Your task to perform on an android device: add a contact in the contacts app Image 0: 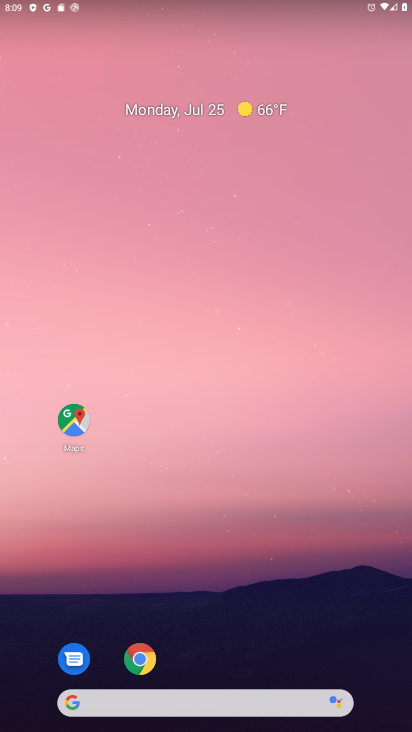
Step 0: drag from (218, 665) to (147, 158)
Your task to perform on an android device: add a contact in the contacts app Image 1: 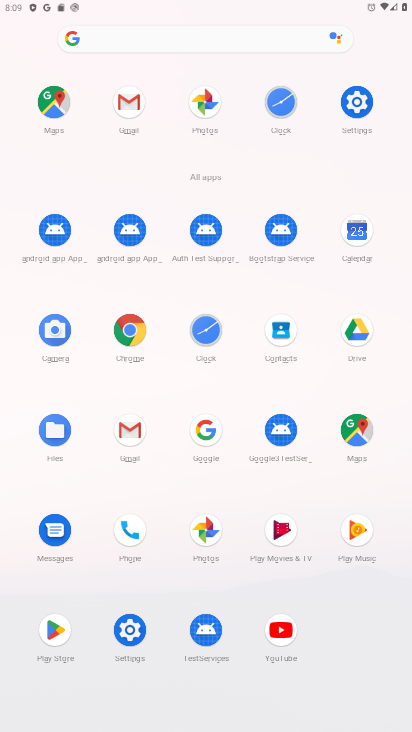
Step 1: click (131, 516)
Your task to perform on an android device: add a contact in the contacts app Image 2: 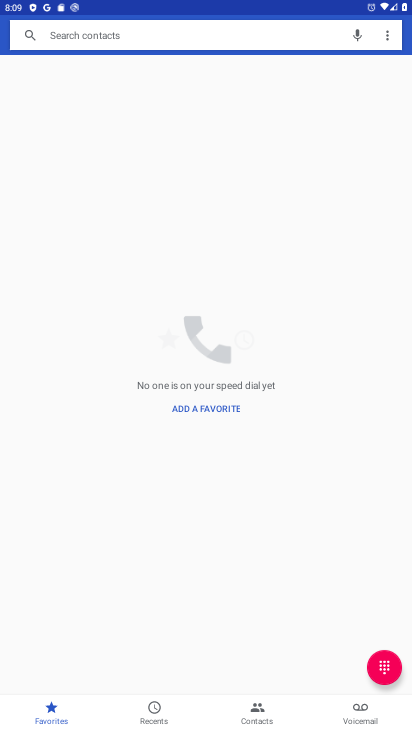
Step 2: click (261, 717)
Your task to perform on an android device: add a contact in the contacts app Image 3: 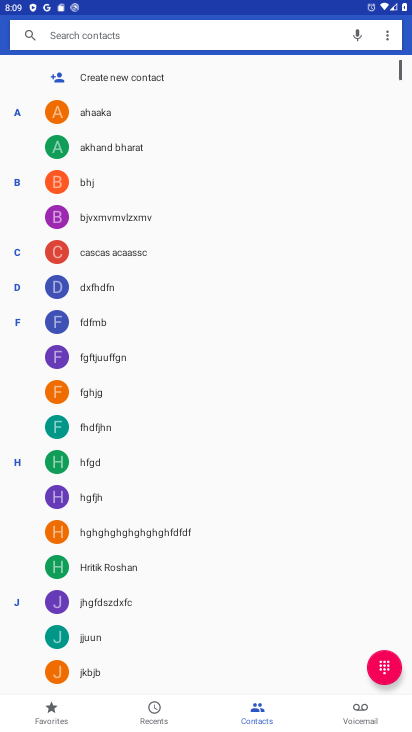
Step 3: click (72, 72)
Your task to perform on an android device: add a contact in the contacts app Image 4: 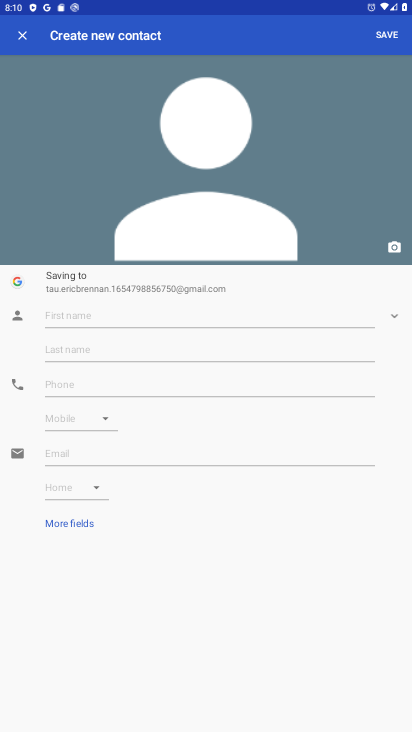
Step 4: type "j"
Your task to perform on an android device: add a contact in the contacts app Image 5: 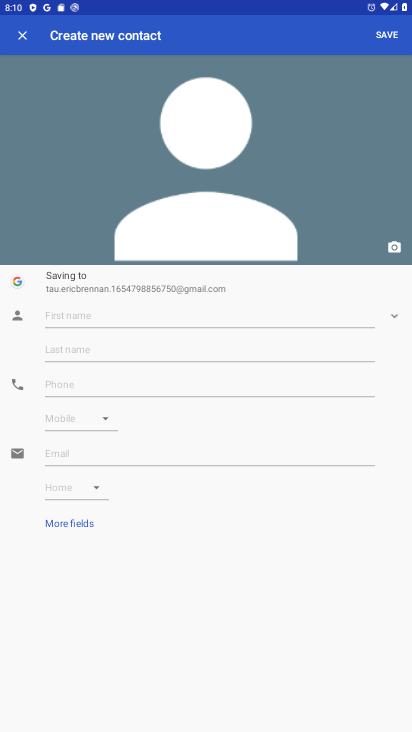
Step 5: click (119, 308)
Your task to perform on an android device: add a contact in the contacts app Image 6: 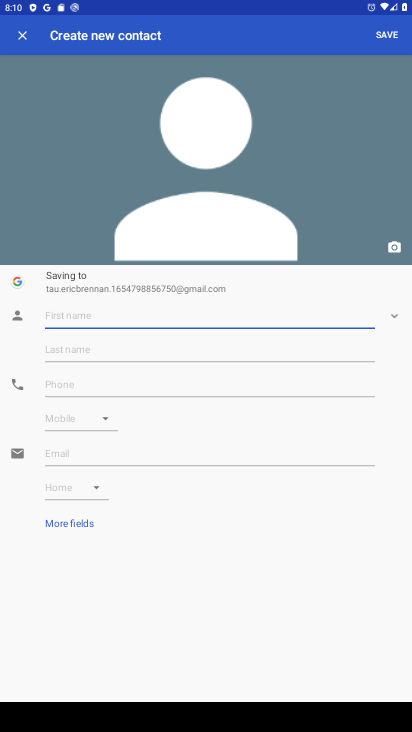
Step 6: type "vjnf"
Your task to perform on an android device: add a contact in the contacts app Image 7: 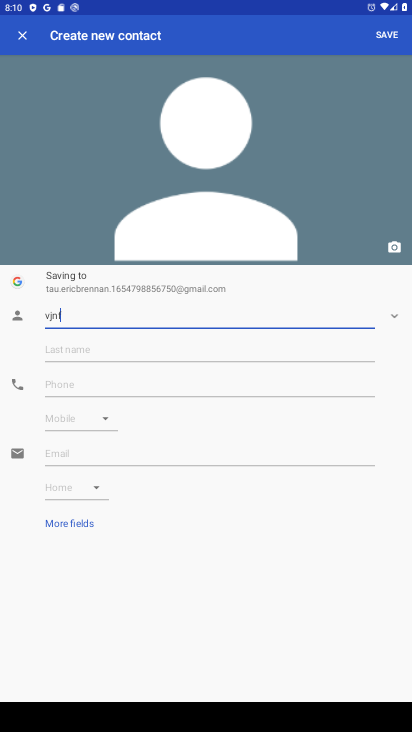
Step 7: click (365, 389)
Your task to perform on an android device: add a contact in the contacts app Image 8: 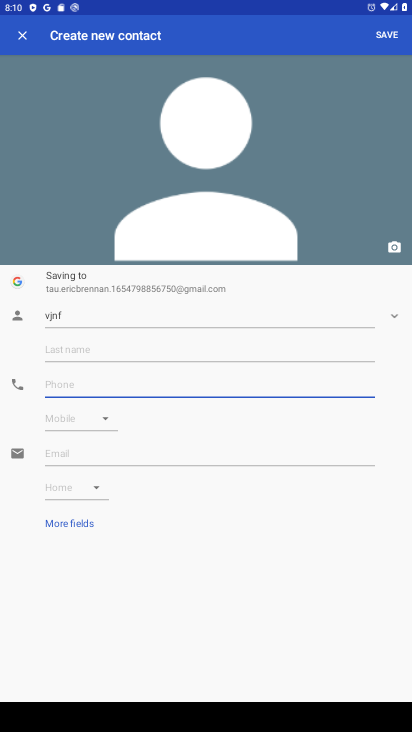
Step 8: type "9504"
Your task to perform on an android device: add a contact in the contacts app Image 9: 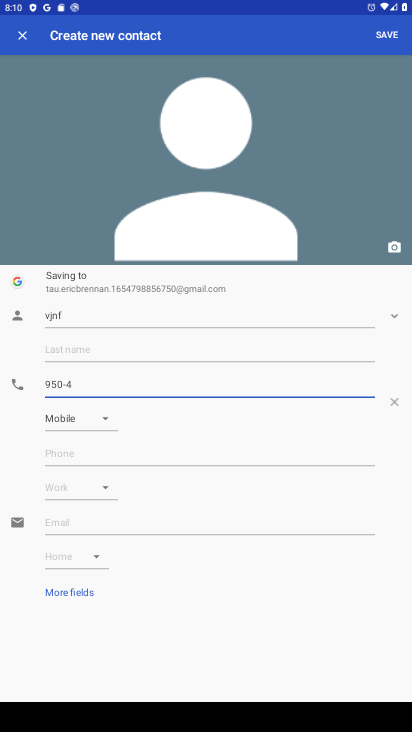
Step 9: click (378, 30)
Your task to perform on an android device: add a contact in the contacts app Image 10: 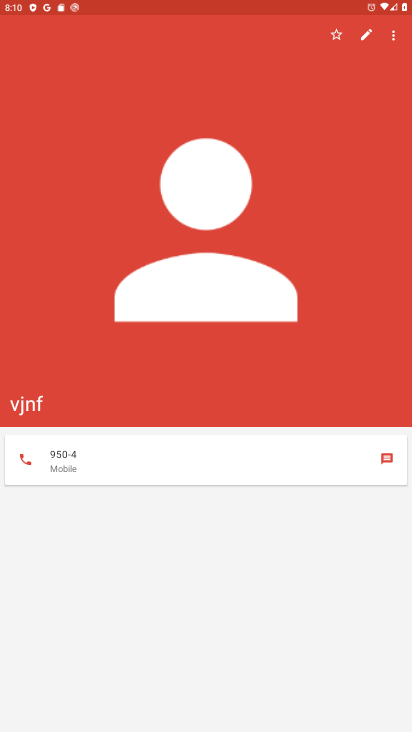
Step 10: task complete